Your task to perform on an android device: stop showing notifications on the lock screen Image 0: 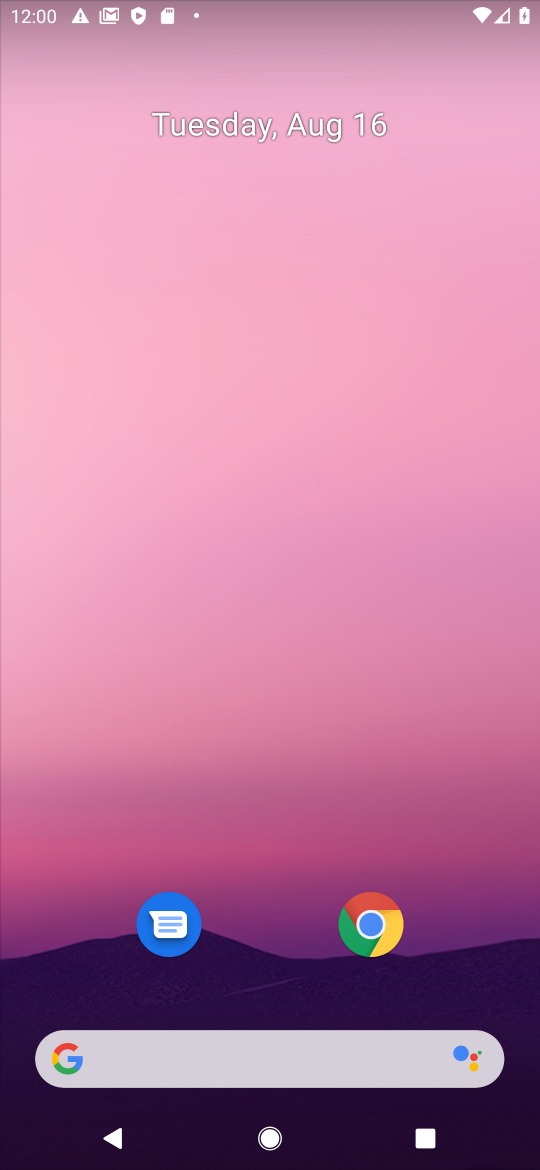
Step 0: drag from (265, 950) to (305, 195)
Your task to perform on an android device: stop showing notifications on the lock screen Image 1: 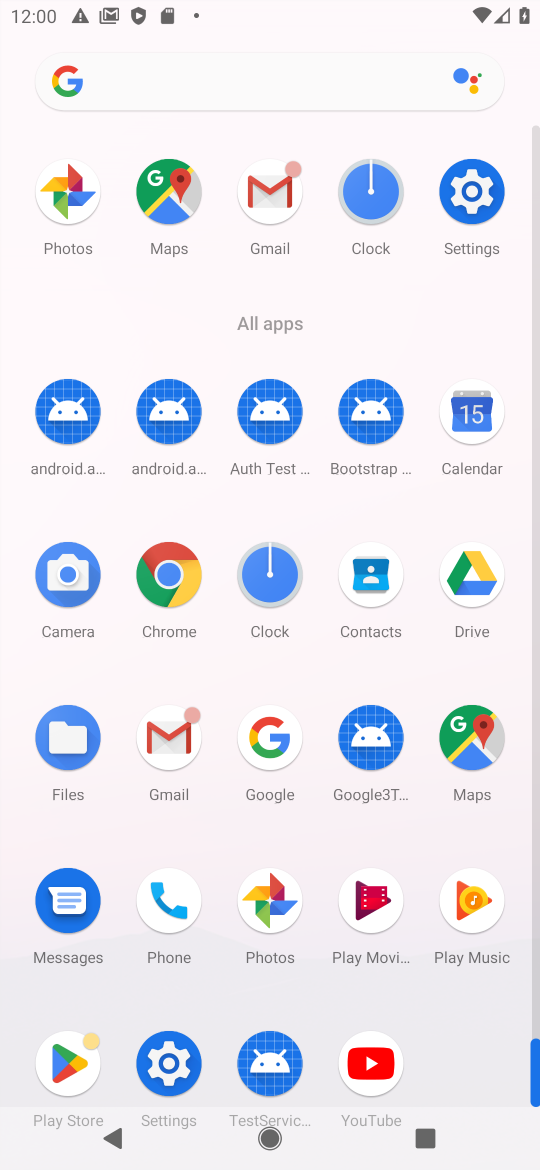
Step 1: click (175, 1064)
Your task to perform on an android device: stop showing notifications on the lock screen Image 2: 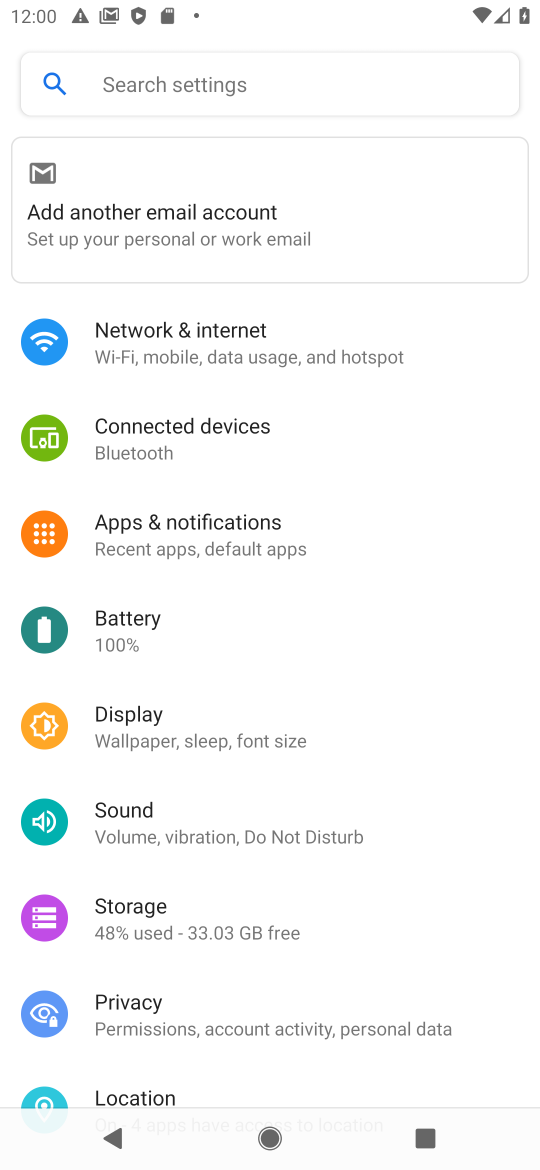
Step 2: click (201, 534)
Your task to perform on an android device: stop showing notifications on the lock screen Image 3: 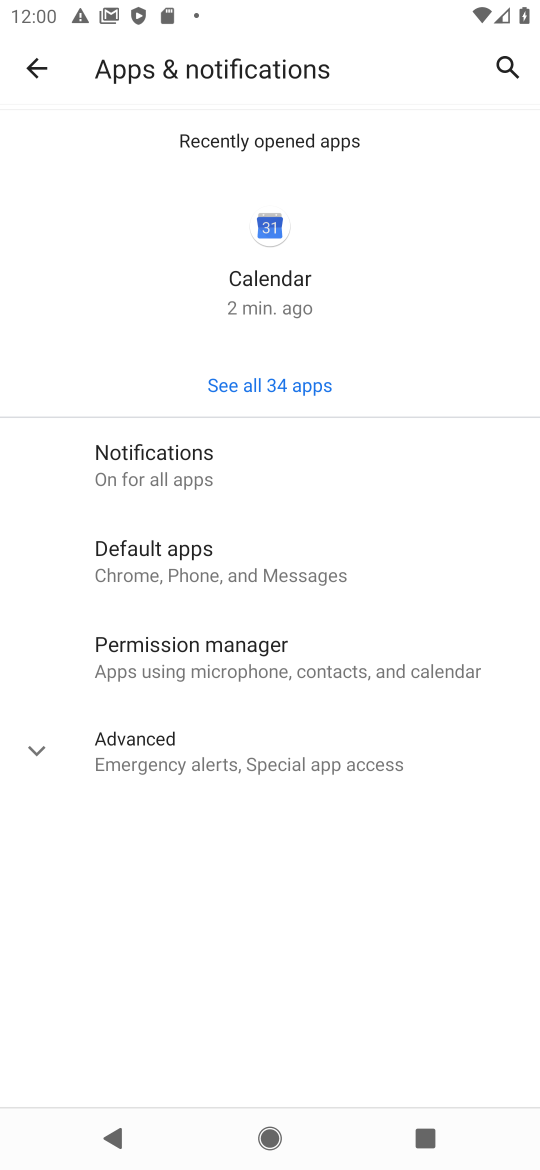
Step 3: click (159, 466)
Your task to perform on an android device: stop showing notifications on the lock screen Image 4: 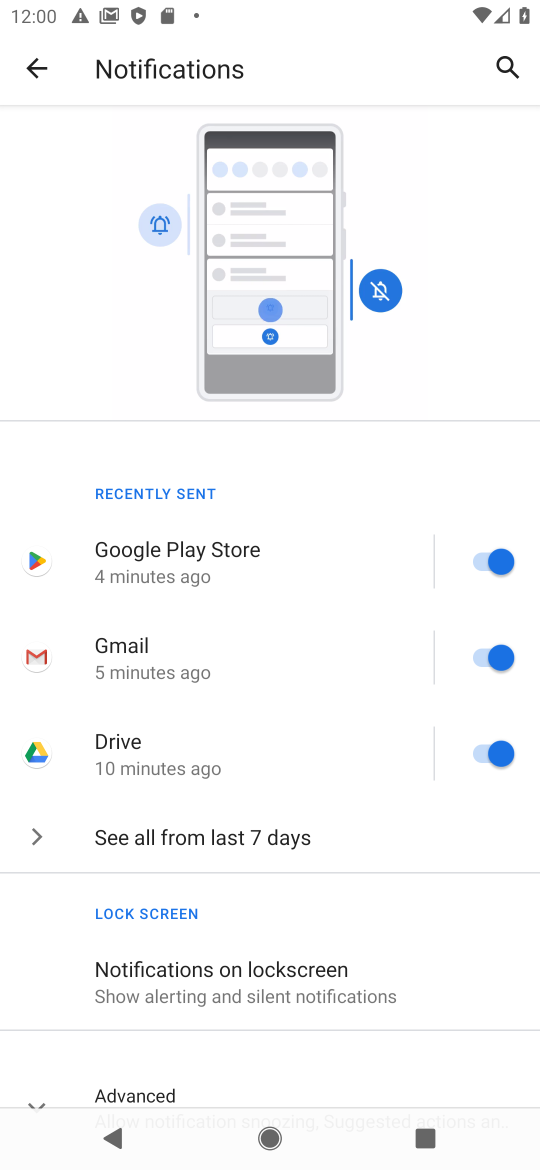
Step 4: click (194, 960)
Your task to perform on an android device: stop showing notifications on the lock screen Image 5: 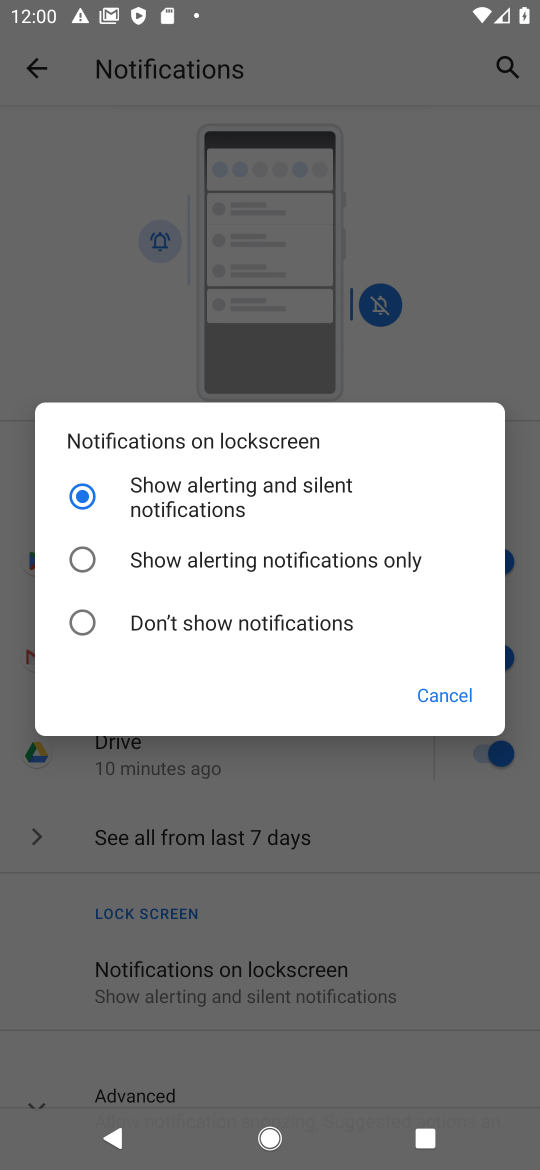
Step 5: click (246, 624)
Your task to perform on an android device: stop showing notifications on the lock screen Image 6: 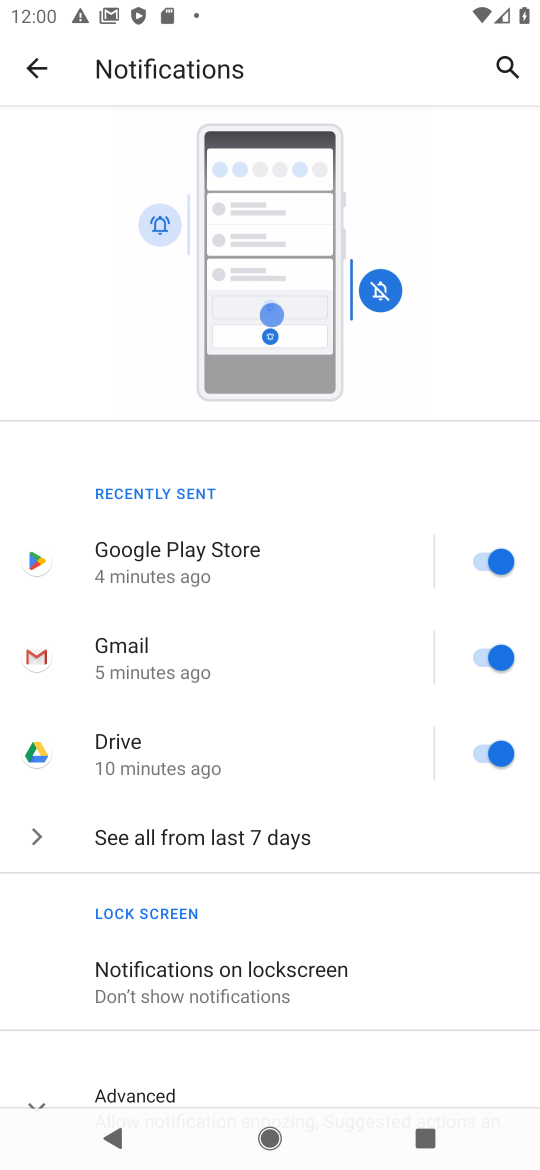
Step 6: task complete